Your task to perform on an android device: toggle priority inbox in the gmail app Image 0: 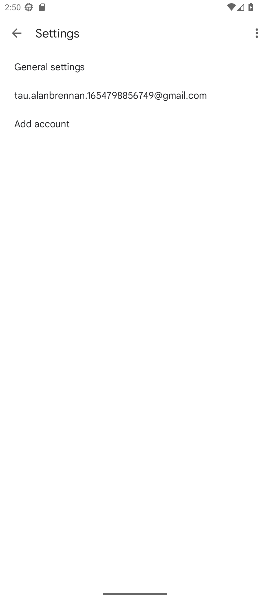
Step 0: press home button
Your task to perform on an android device: toggle priority inbox in the gmail app Image 1: 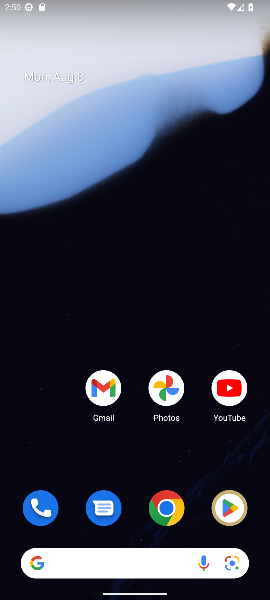
Step 1: click (105, 387)
Your task to perform on an android device: toggle priority inbox in the gmail app Image 2: 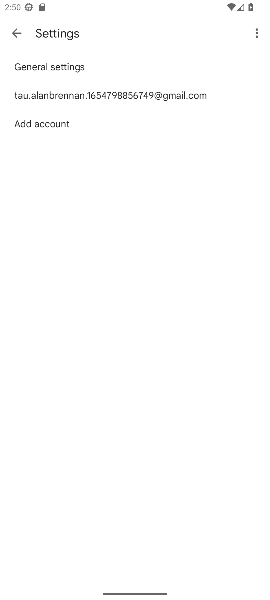
Step 2: click (15, 33)
Your task to perform on an android device: toggle priority inbox in the gmail app Image 3: 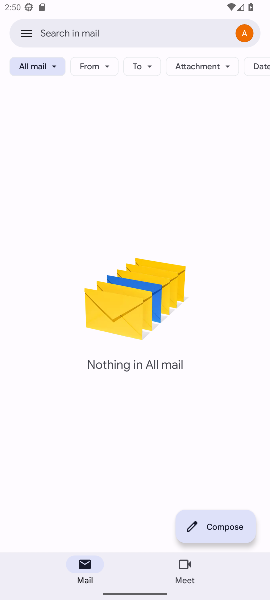
Step 3: click (26, 27)
Your task to perform on an android device: toggle priority inbox in the gmail app Image 4: 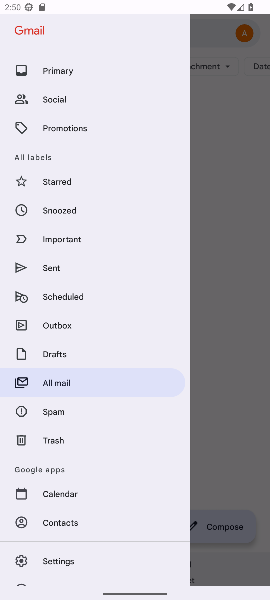
Step 4: drag from (100, 485) to (96, 157)
Your task to perform on an android device: toggle priority inbox in the gmail app Image 5: 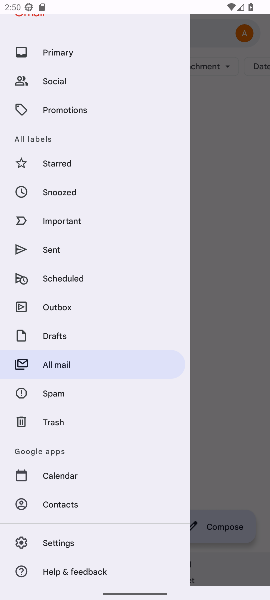
Step 5: click (65, 538)
Your task to perform on an android device: toggle priority inbox in the gmail app Image 6: 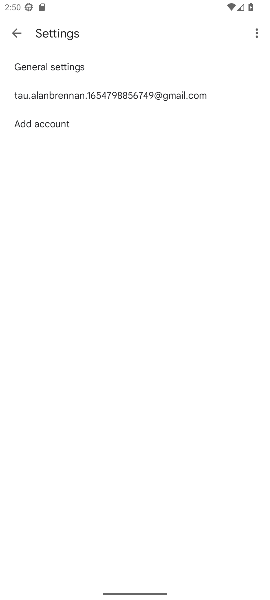
Step 6: click (65, 95)
Your task to perform on an android device: toggle priority inbox in the gmail app Image 7: 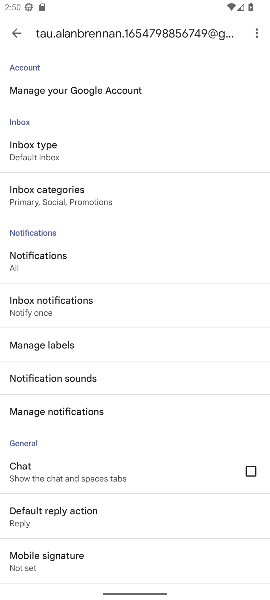
Step 7: click (42, 143)
Your task to perform on an android device: toggle priority inbox in the gmail app Image 8: 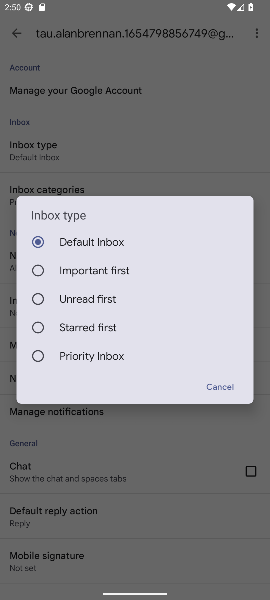
Step 8: click (34, 359)
Your task to perform on an android device: toggle priority inbox in the gmail app Image 9: 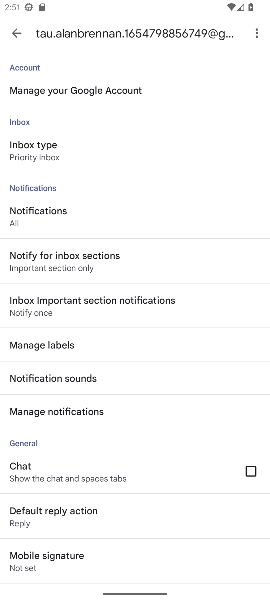
Step 9: task complete